Your task to perform on an android device: Search for Mexican restaurants on Maps Image 0: 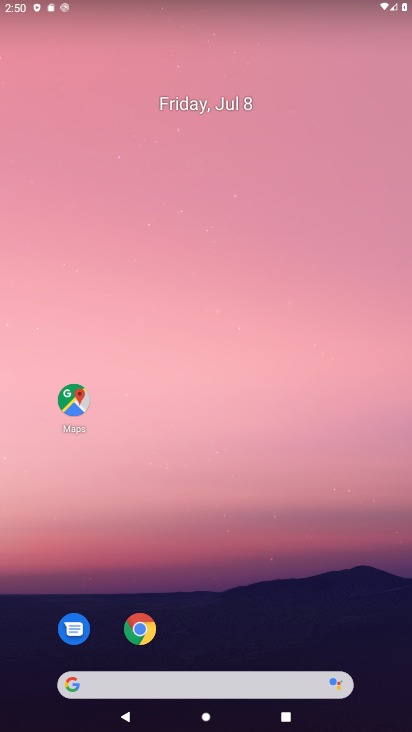
Step 0: drag from (33, 721) to (262, 139)
Your task to perform on an android device: Search for Mexican restaurants on Maps Image 1: 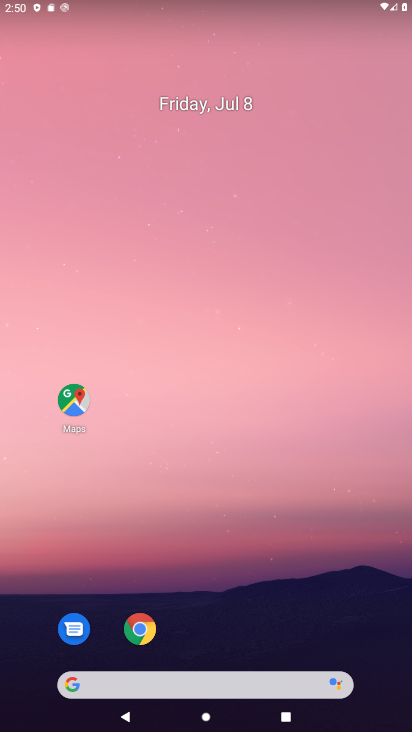
Step 1: click (59, 400)
Your task to perform on an android device: Search for Mexican restaurants on Maps Image 2: 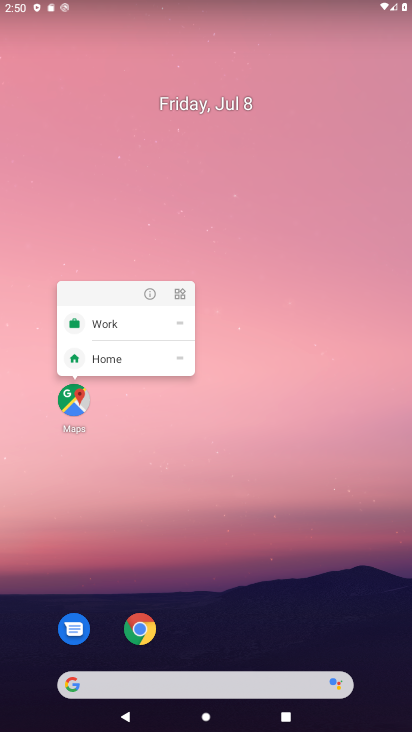
Step 2: click (65, 408)
Your task to perform on an android device: Search for Mexican restaurants on Maps Image 3: 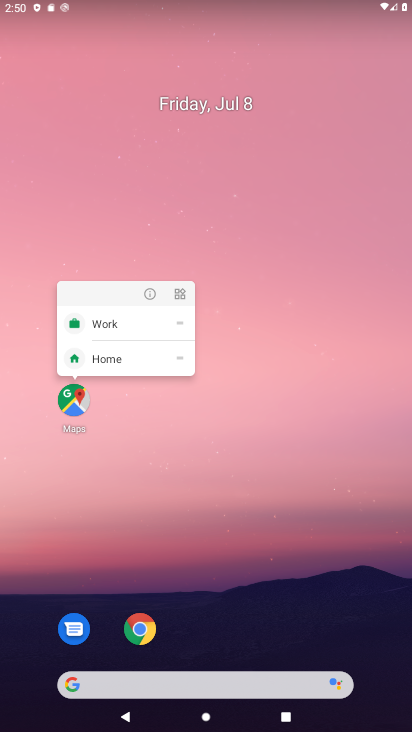
Step 3: click (67, 397)
Your task to perform on an android device: Search for Mexican restaurants on Maps Image 4: 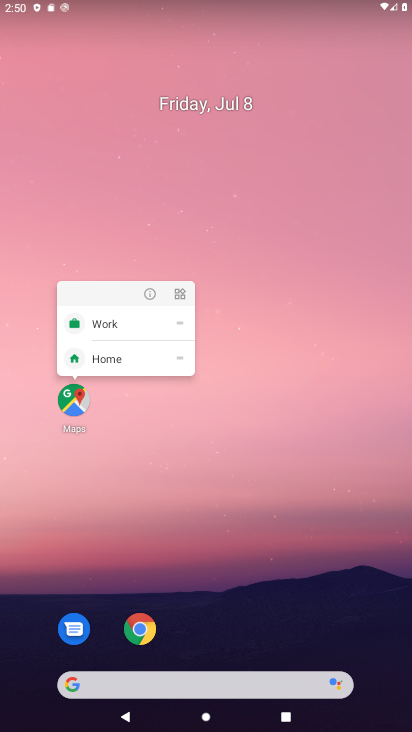
Step 4: click (70, 416)
Your task to perform on an android device: Search for Mexican restaurants on Maps Image 5: 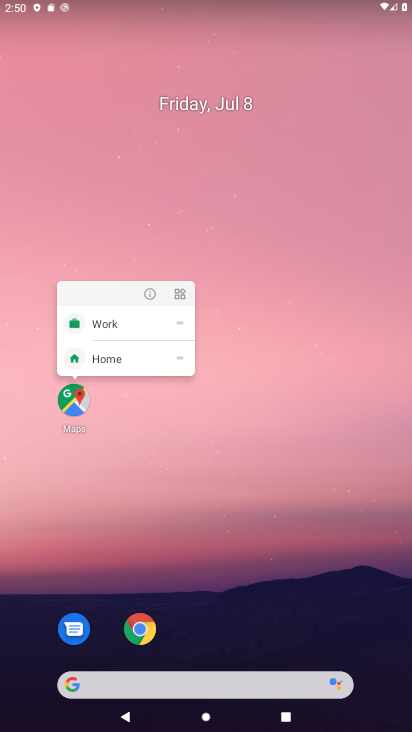
Step 5: task complete